Your task to perform on an android device: open chrome and create a bookmark for the current page Image 0: 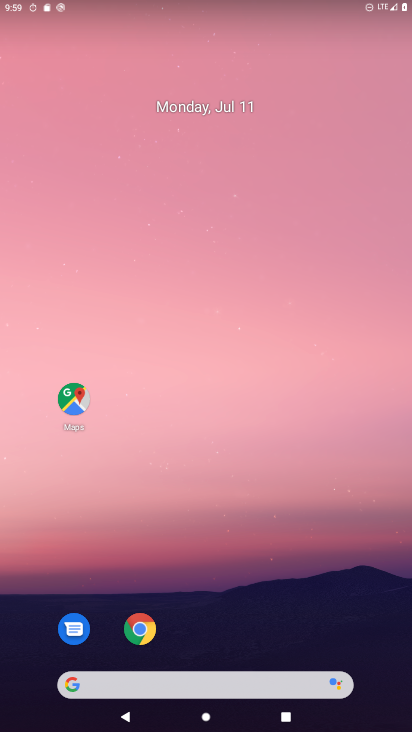
Step 0: click (136, 637)
Your task to perform on an android device: open chrome and create a bookmark for the current page Image 1: 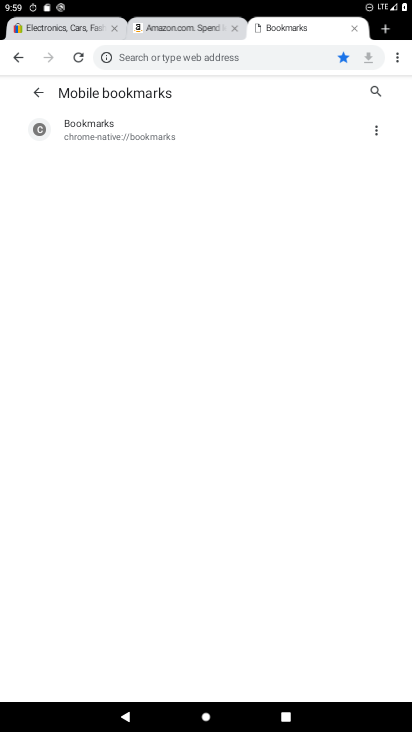
Step 1: task complete